Your task to perform on an android device: Open eBay Image 0: 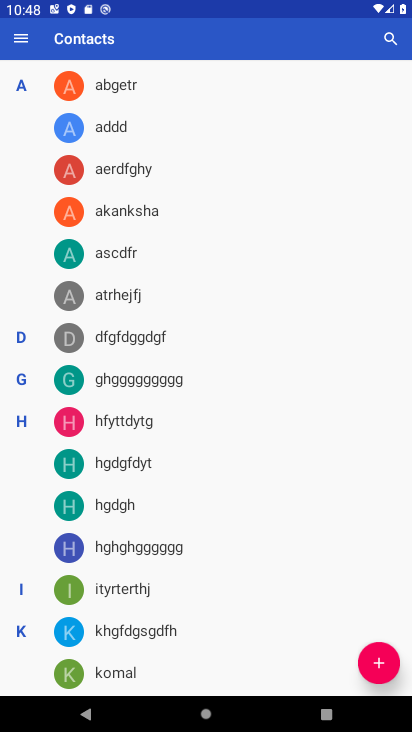
Step 0: press home button
Your task to perform on an android device: Open eBay Image 1: 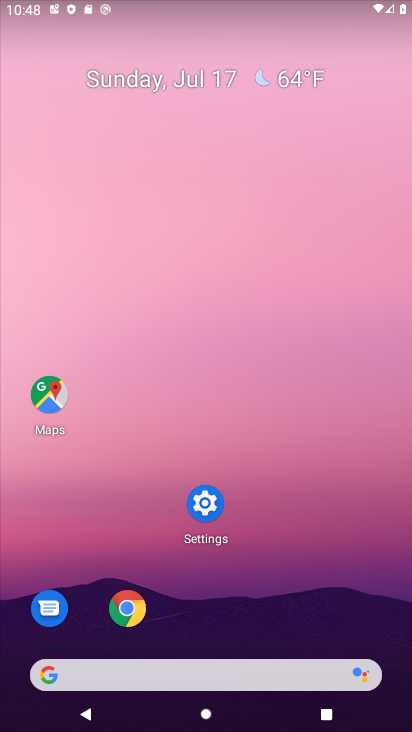
Step 1: click (127, 599)
Your task to perform on an android device: Open eBay Image 2: 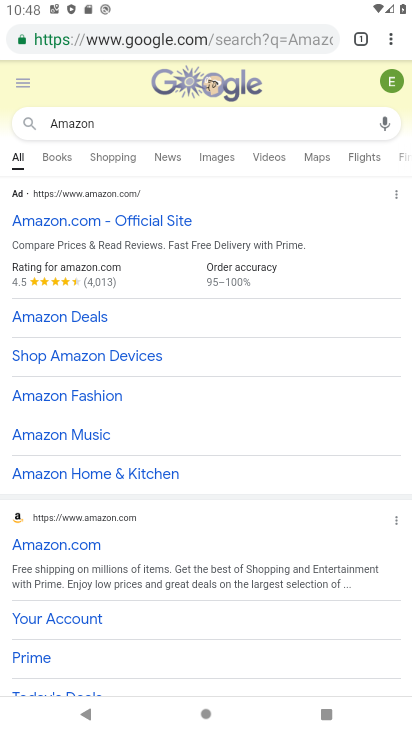
Step 2: click (328, 33)
Your task to perform on an android device: Open eBay Image 3: 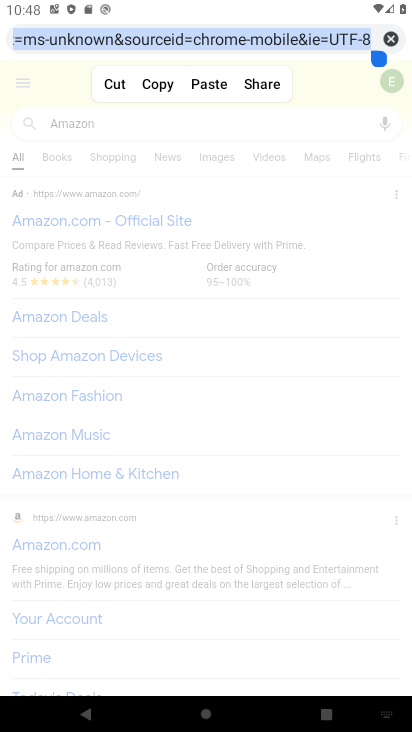
Step 3: click (393, 41)
Your task to perform on an android device: Open eBay Image 4: 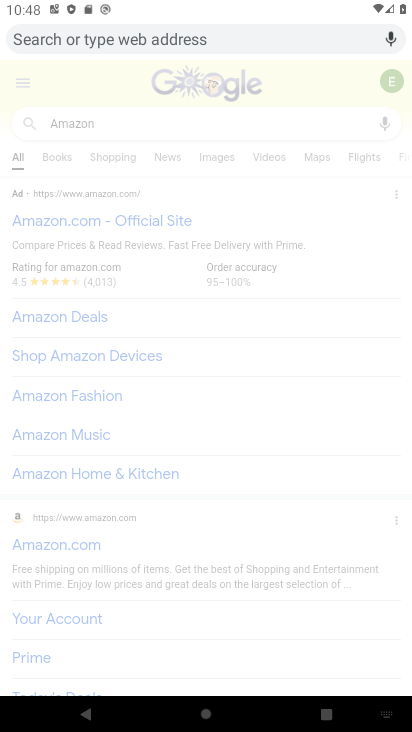
Step 4: type "eBay"
Your task to perform on an android device: Open eBay Image 5: 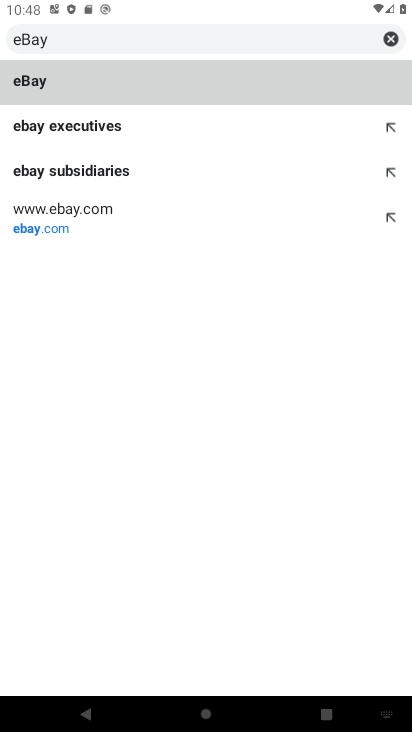
Step 5: click (240, 85)
Your task to perform on an android device: Open eBay Image 6: 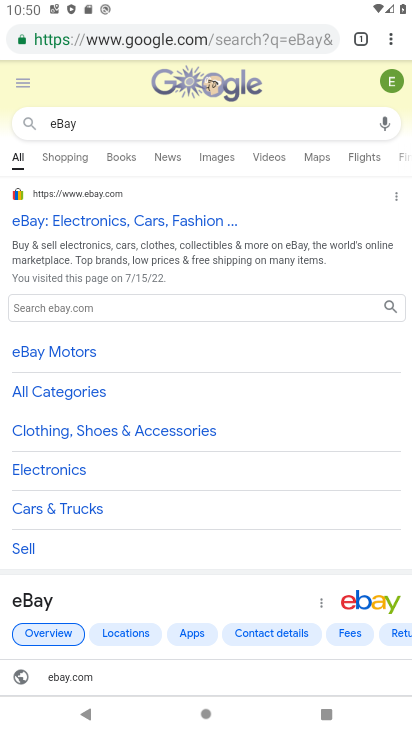
Step 6: task complete